Your task to perform on an android device: What's the weather going to be tomorrow? Image 0: 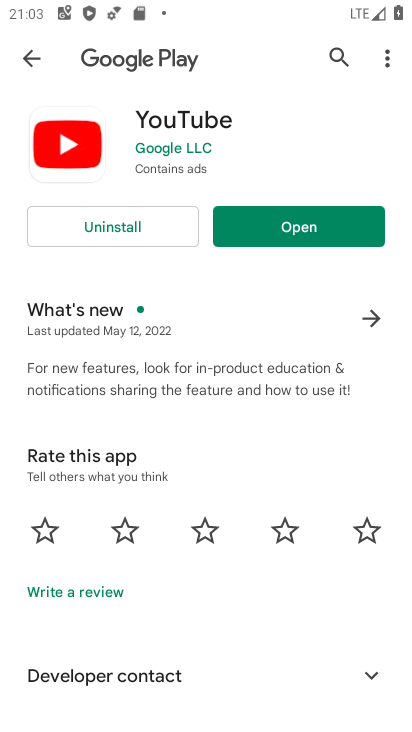
Step 0: press back button
Your task to perform on an android device: What's the weather going to be tomorrow? Image 1: 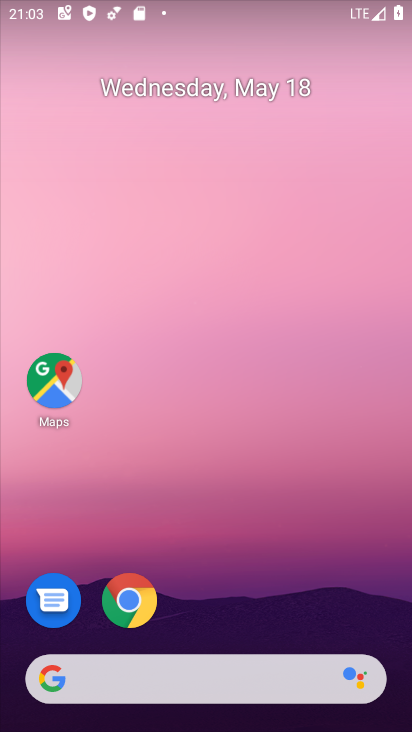
Step 1: click (170, 677)
Your task to perform on an android device: What's the weather going to be tomorrow? Image 2: 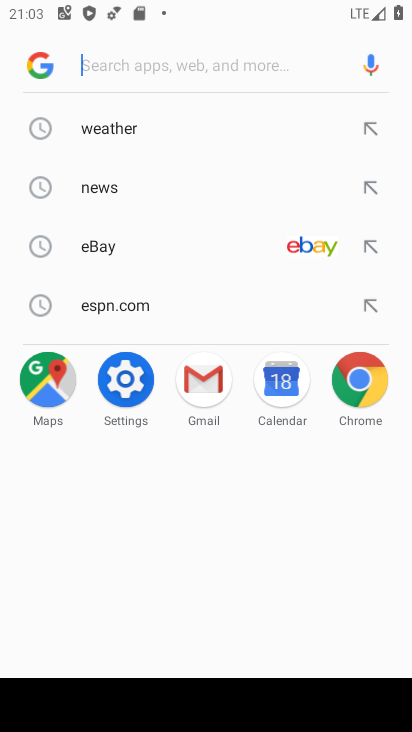
Step 2: click (117, 120)
Your task to perform on an android device: What's the weather going to be tomorrow? Image 3: 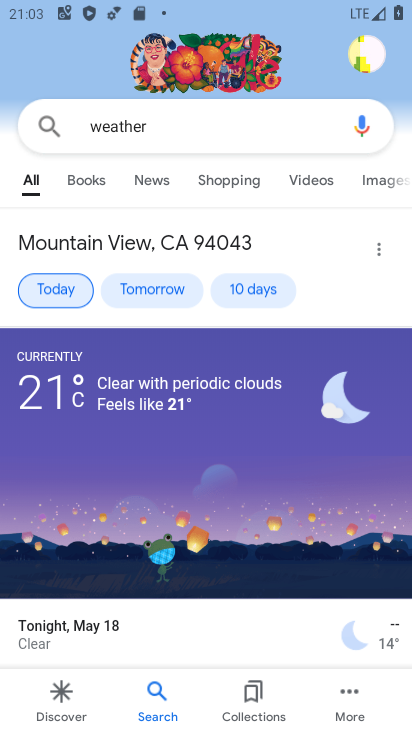
Step 3: click (164, 295)
Your task to perform on an android device: What's the weather going to be tomorrow? Image 4: 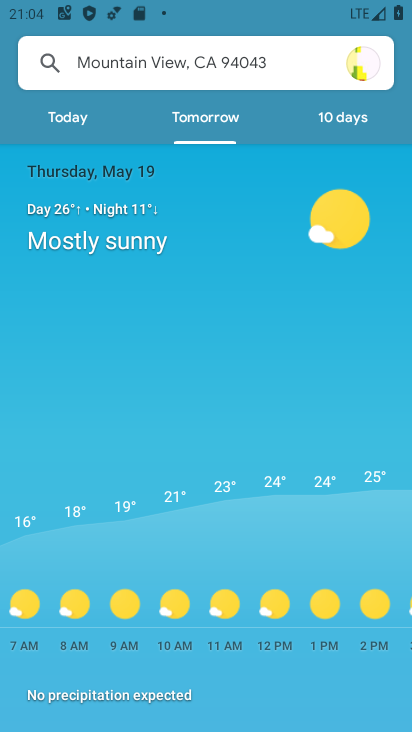
Step 4: task complete